Your task to perform on an android device: See recent photos Image 0: 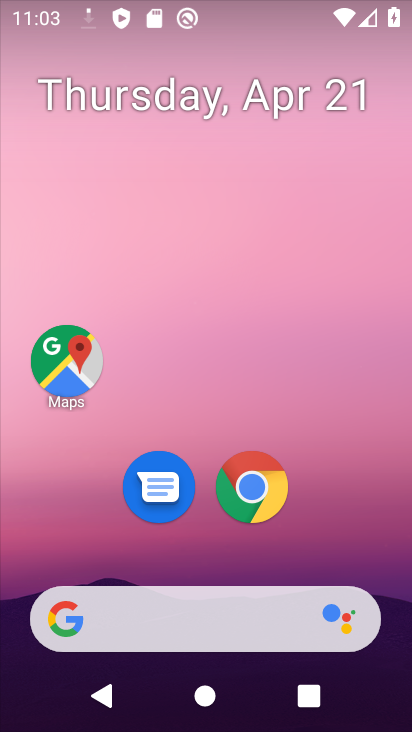
Step 0: drag from (177, 402) to (216, 64)
Your task to perform on an android device: See recent photos Image 1: 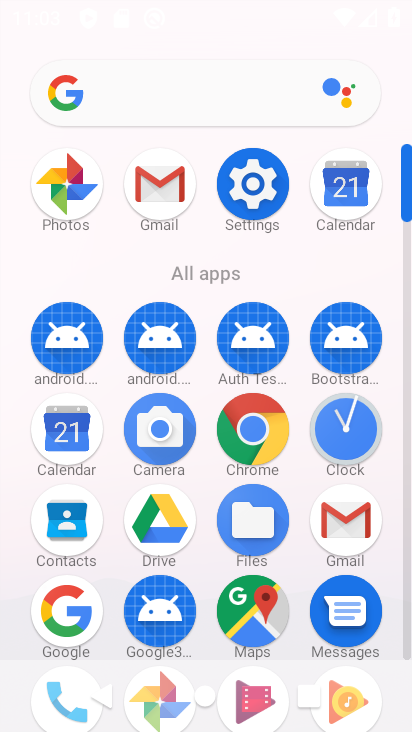
Step 1: click (68, 198)
Your task to perform on an android device: See recent photos Image 2: 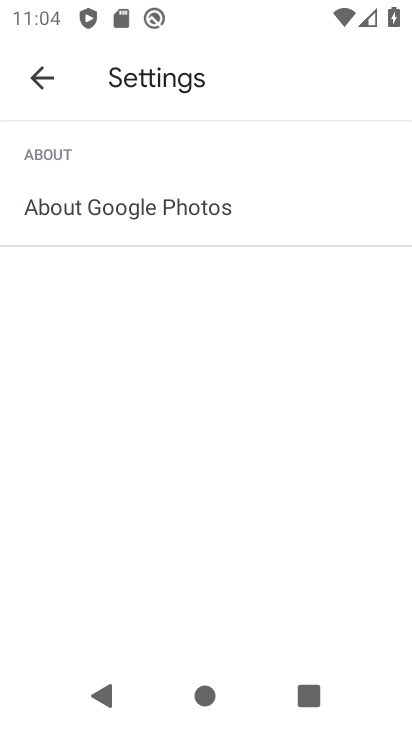
Step 2: click (41, 81)
Your task to perform on an android device: See recent photos Image 3: 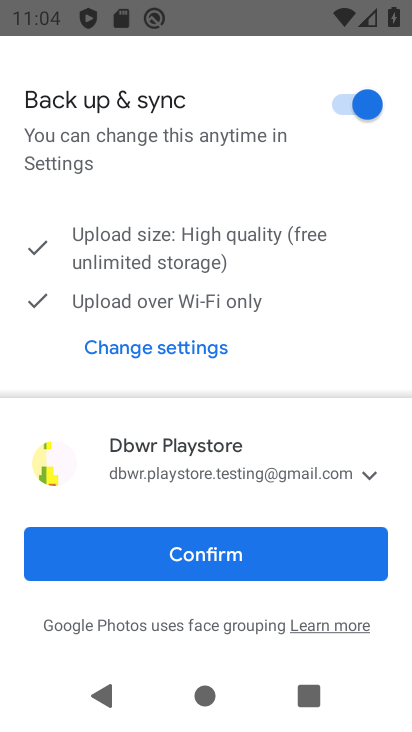
Step 3: click (233, 564)
Your task to perform on an android device: See recent photos Image 4: 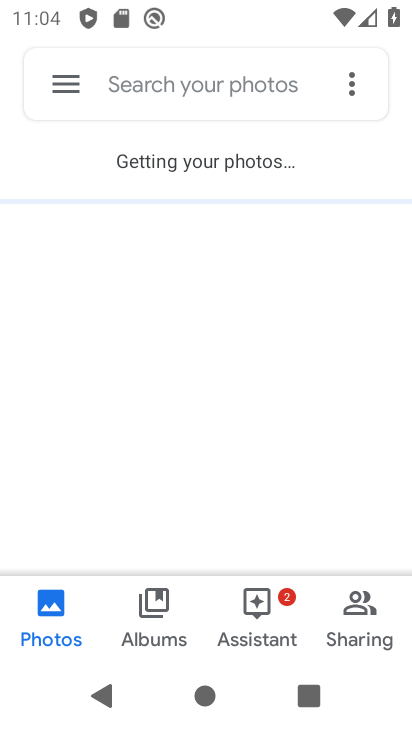
Step 4: task complete